Your task to perform on an android device: Open Google Chrome Image 0: 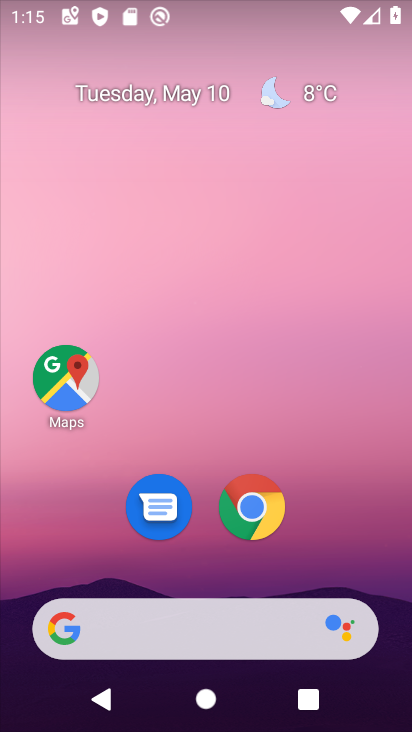
Step 0: drag from (293, 657) to (286, 182)
Your task to perform on an android device: Open Google Chrome Image 1: 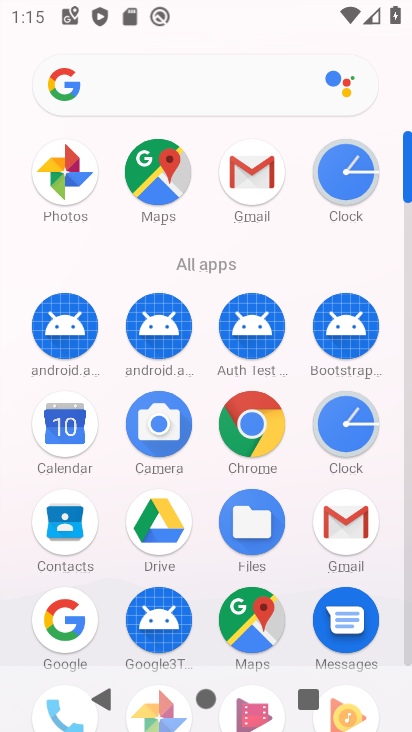
Step 1: click (248, 420)
Your task to perform on an android device: Open Google Chrome Image 2: 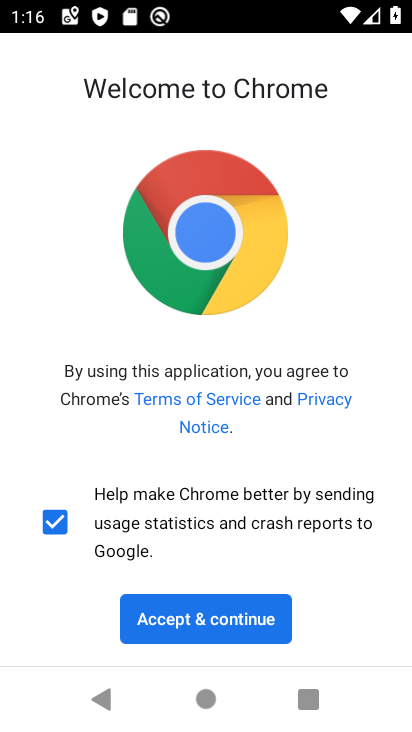
Step 2: click (236, 606)
Your task to perform on an android device: Open Google Chrome Image 3: 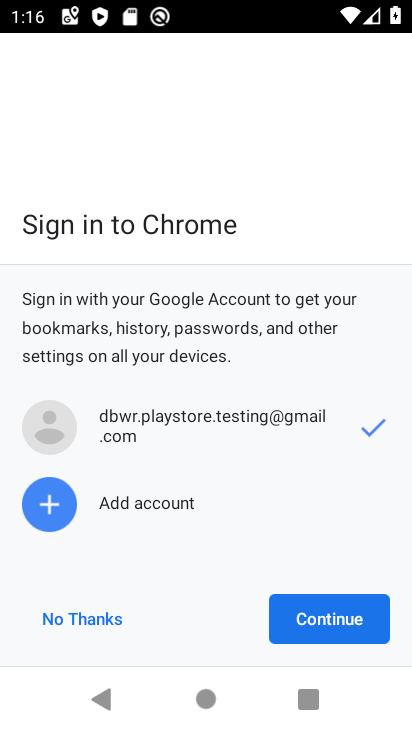
Step 3: click (306, 611)
Your task to perform on an android device: Open Google Chrome Image 4: 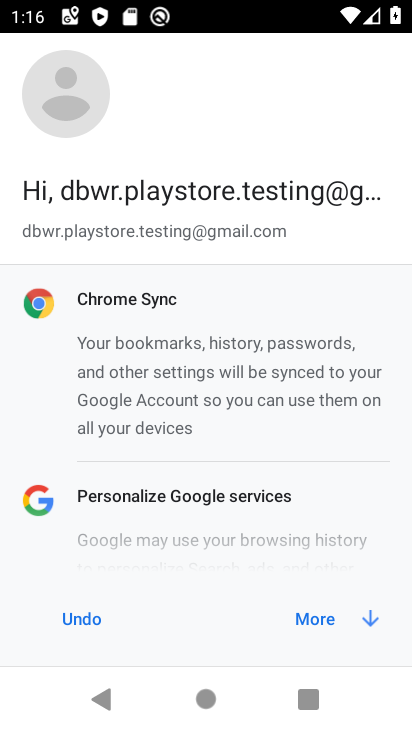
Step 4: click (368, 624)
Your task to perform on an android device: Open Google Chrome Image 5: 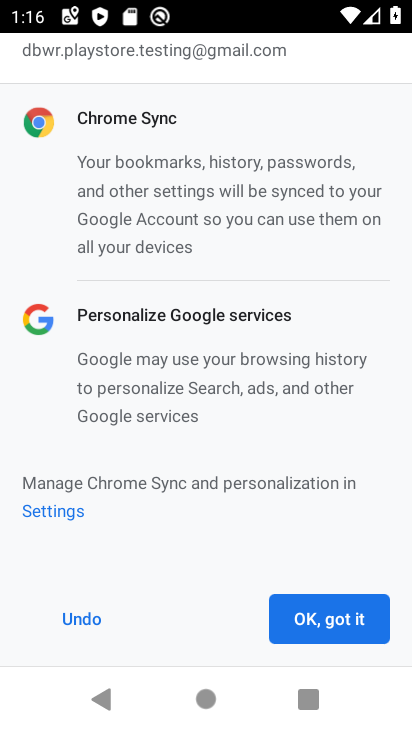
Step 5: click (346, 610)
Your task to perform on an android device: Open Google Chrome Image 6: 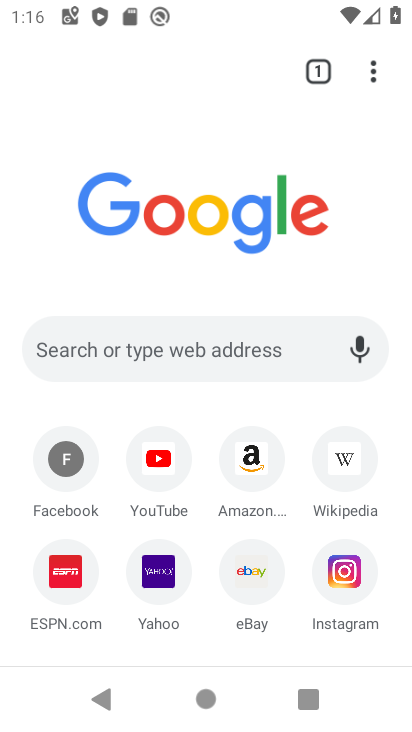
Step 6: task complete